Your task to perform on an android device: turn on priority inbox in the gmail app Image 0: 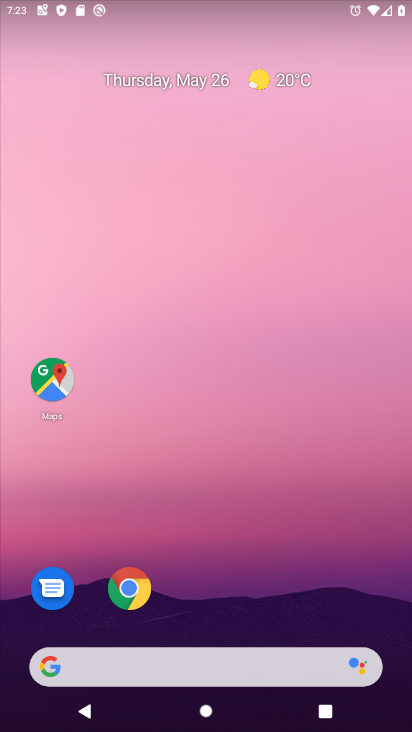
Step 0: drag from (336, 237) to (269, 19)
Your task to perform on an android device: turn on priority inbox in the gmail app Image 1: 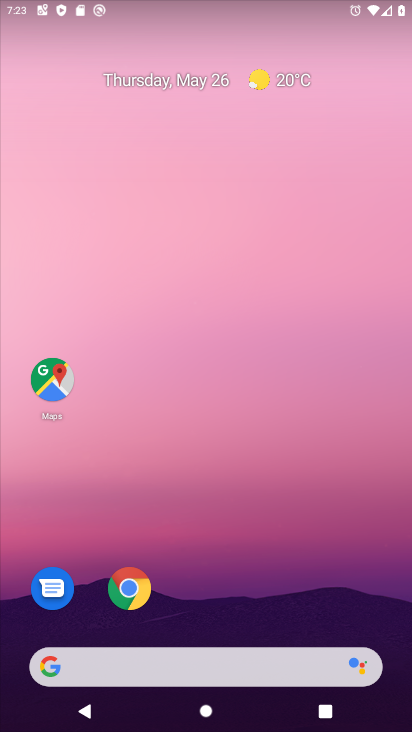
Step 1: drag from (364, 624) to (269, 24)
Your task to perform on an android device: turn on priority inbox in the gmail app Image 2: 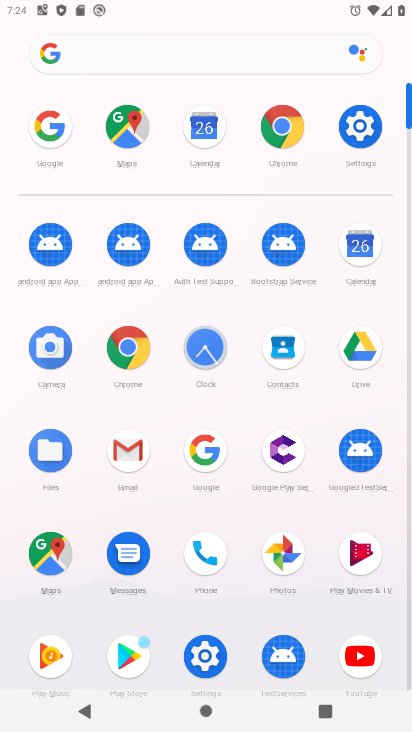
Step 2: click (128, 461)
Your task to perform on an android device: turn on priority inbox in the gmail app Image 3: 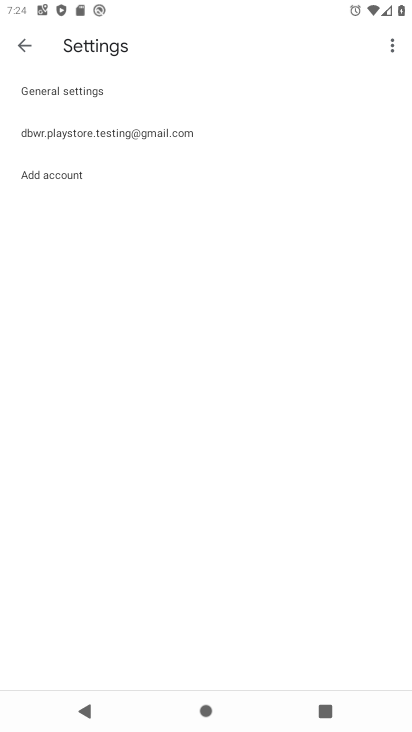
Step 3: click (181, 141)
Your task to perform on an android device: turn on priority inbox in the gmail app Image 4: 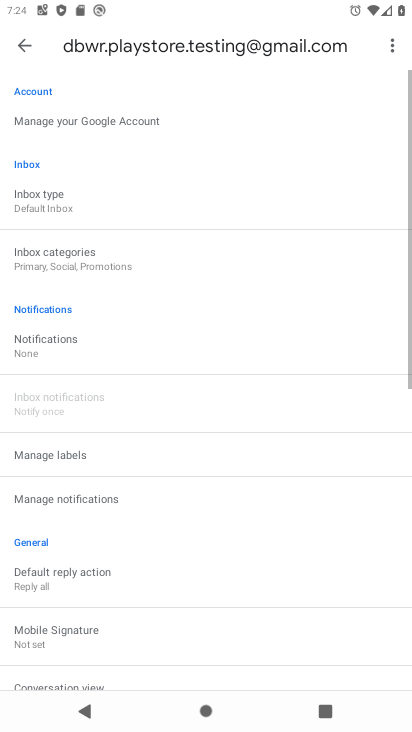
Step 4: click (95, 199)
Your task to perform on an android device: turn on priority inbox in the gmail app Image 5: 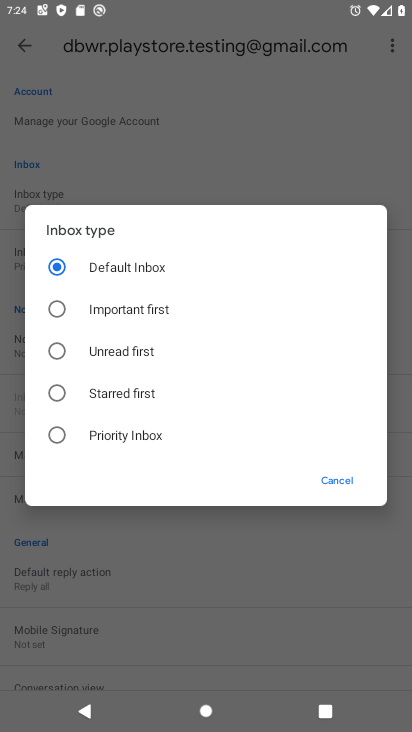
Step 5: click (60, 427)
Your task to perform on an android device: turn on priority inbox in the gmail app Image 6: 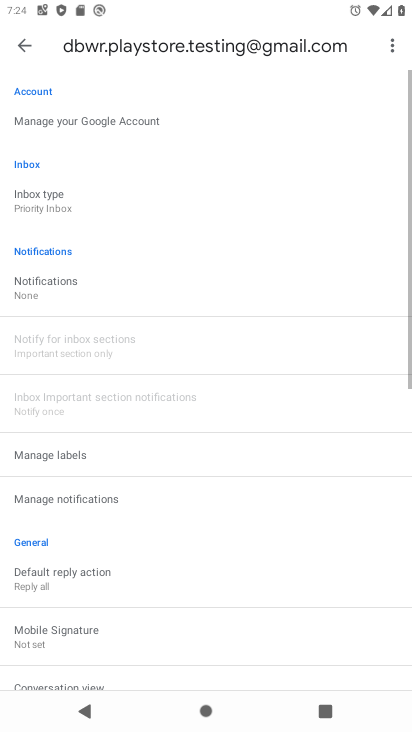
Step 6: task complete